Your task to perform on an android device: Go to Yahoo.com Image 0: 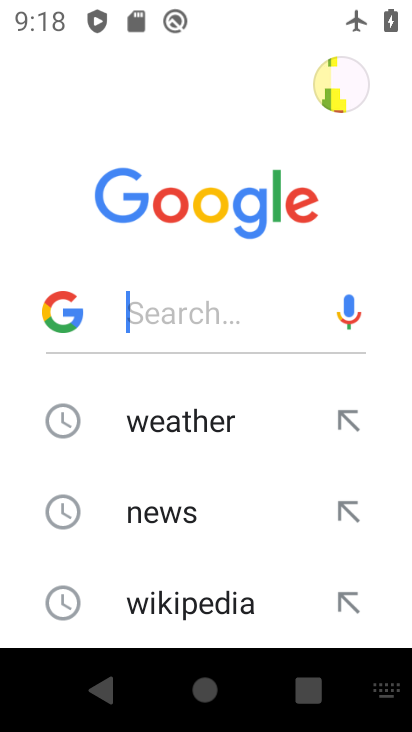
Step 0: press home button
Your task to perform on an android device: Go to Yahoo.com Image 1: 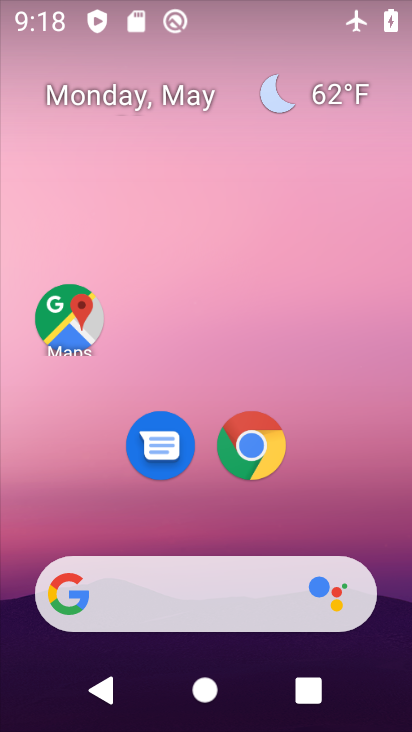
Step 1: drag from (393, 634) to (319, 82)
Your task to perform on an android device: Go to Yahoo.com Image 2: 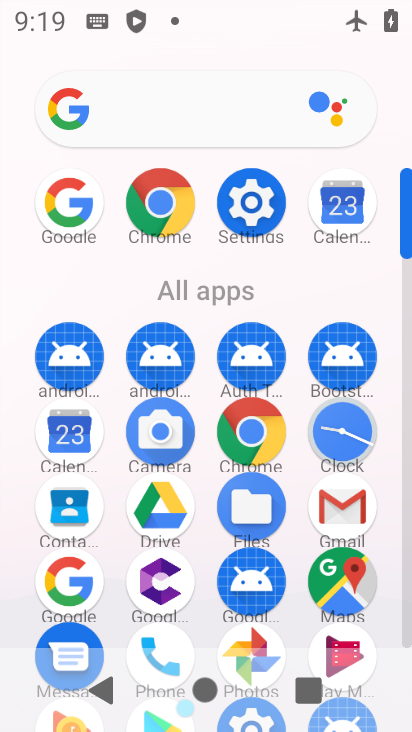
Step 2: click (257, 457)
Your task to perform on an android device: Go to Yahoo.com Image 3: 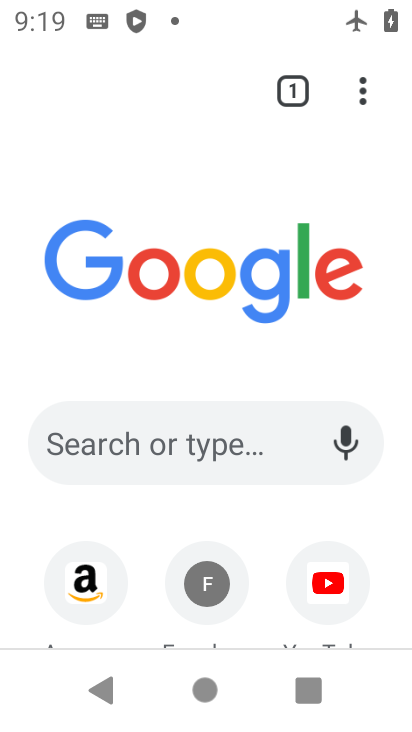
Step 3: drag from (177, 577) to (156, 226)
Your task to perform on an android device: Go to Yahoo.com Image 4: 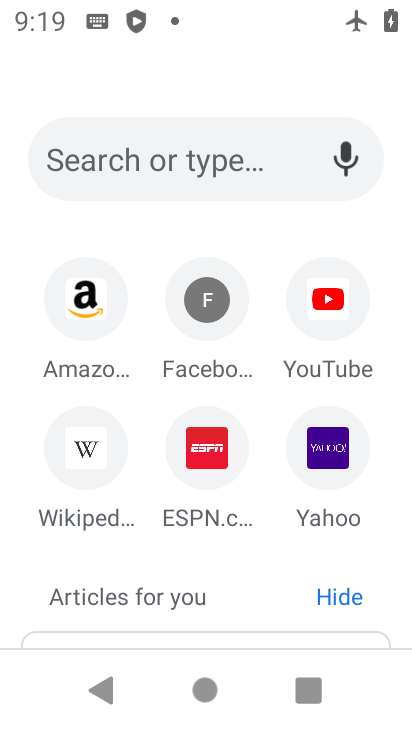
Step 4: click (331, 463)
Your task to perform on an android device: Go to Yahoo.com Image 5: 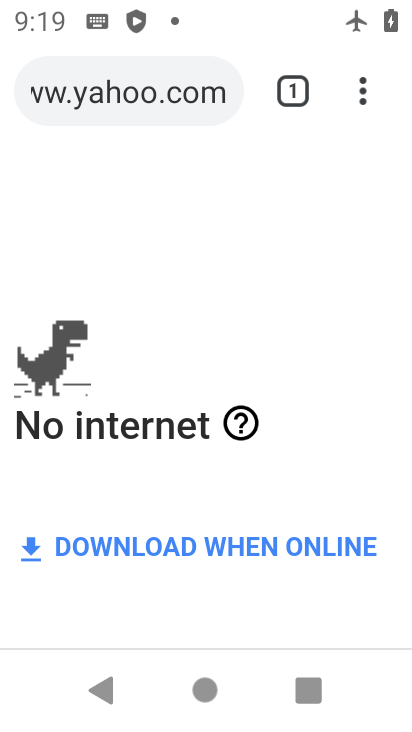
Step 5: task complete